Your task to perform on an android device: see sites visited before in the chrome app Image 0: 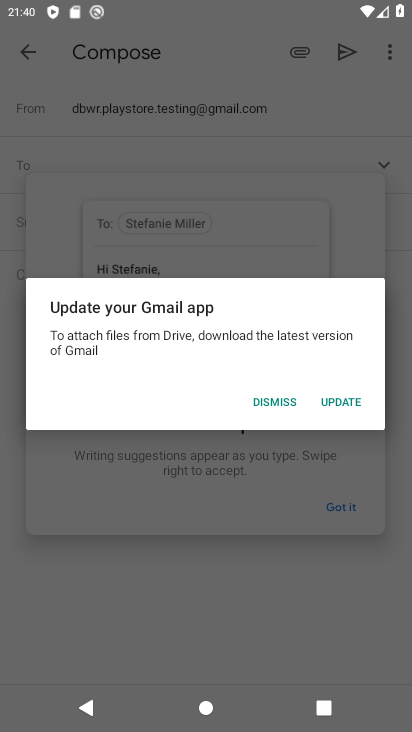
Step 0: press home button
Your task to perform on an android device: see sites visited before in the chrome app Image 1: 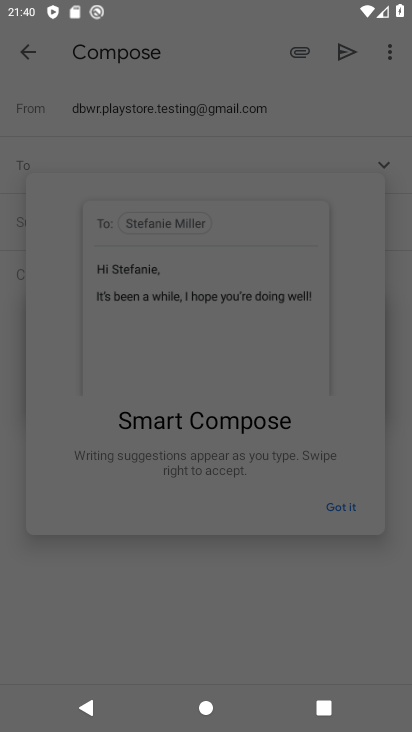
Step 1: press home button
Your task to perform on an android device: see sites visited before in the chrome app Image 2: 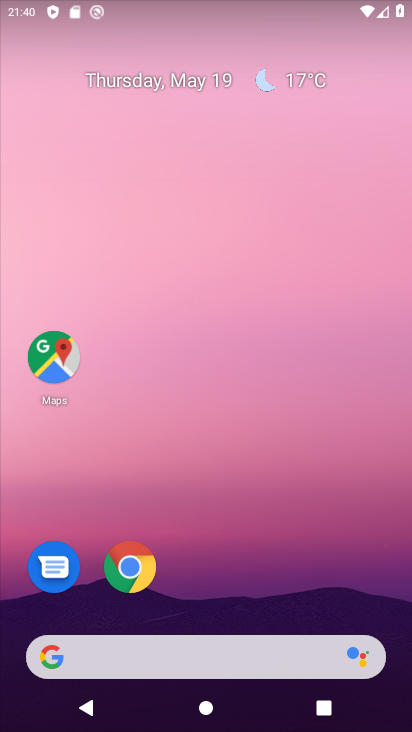
Step 2: click (120, 565)
Your task to perform on an android device: see sites visited before in the chrome app Image 3: 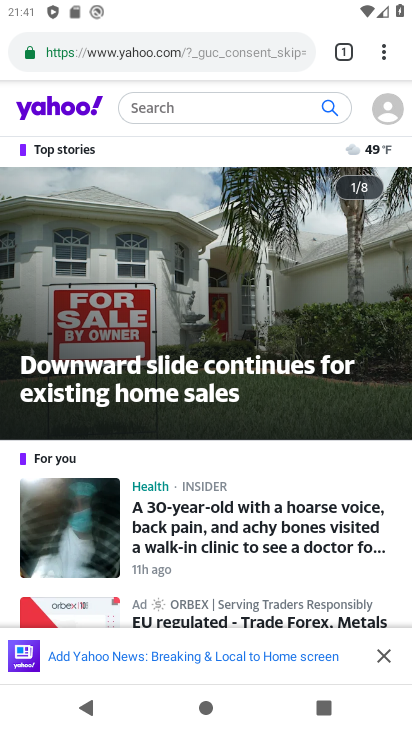
Step 3: click (389, 46)
Your task to perform on an android device: see sites visited before in the chrome app Image 4: 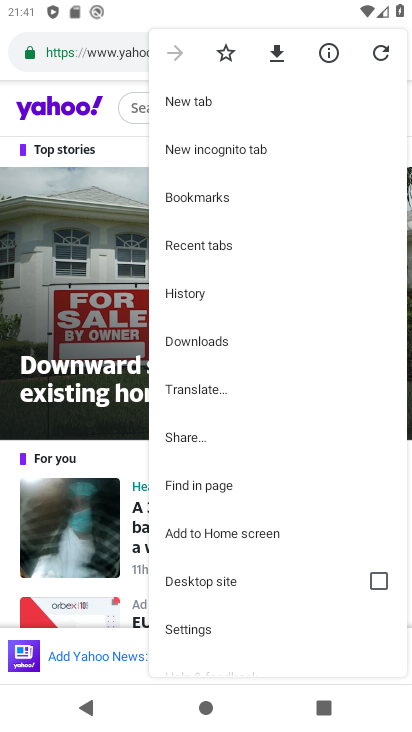
Step 4: click (212, 288)
Your task to perform on an android device: see sites visited before in the chrome app Image 5: 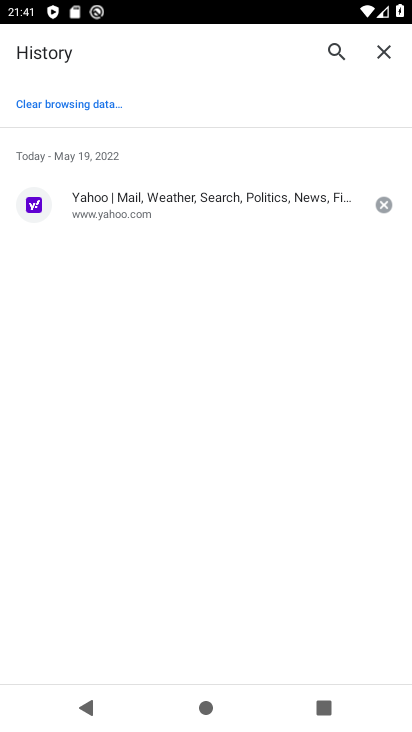
Step 5: task complete